Your task to perform on an android device: Turn on the flashlight Image 0: 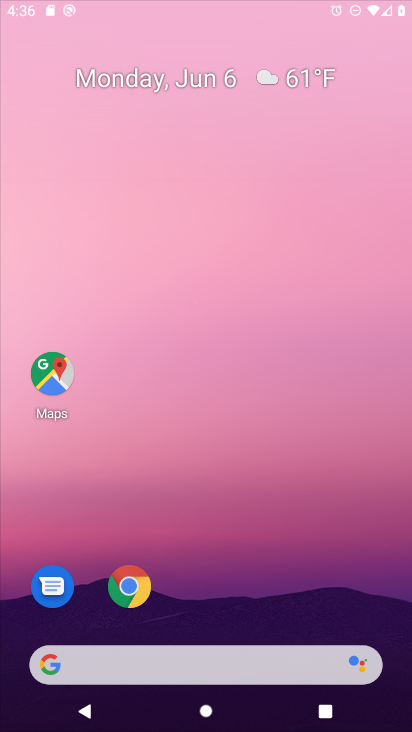
Step 0: click (193, 95)
Your task to perform on an android device: Turn on the flashlight Image 1: 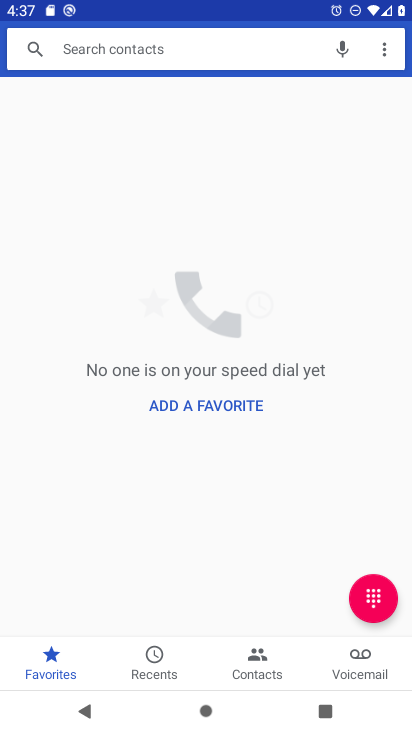
Step 1: drag from (274, 11) to (293, 443)
Your task to perform on an android device: Turn on the flashlight Image 2: 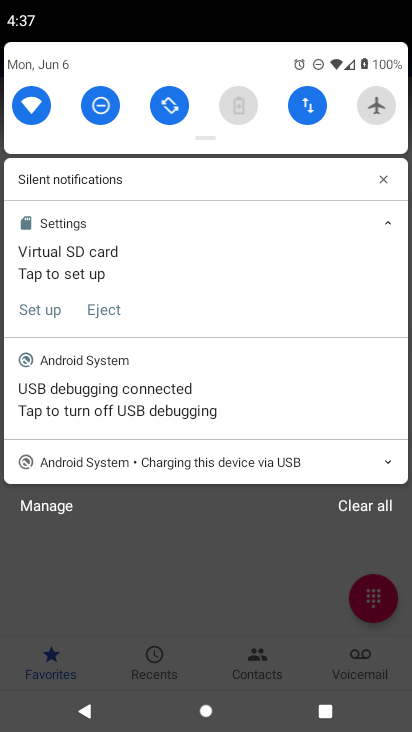
Step 2: drag from (202, 125) to (213, 470)
Your task to perform on an android device: Turn on the flashlight Image 3: 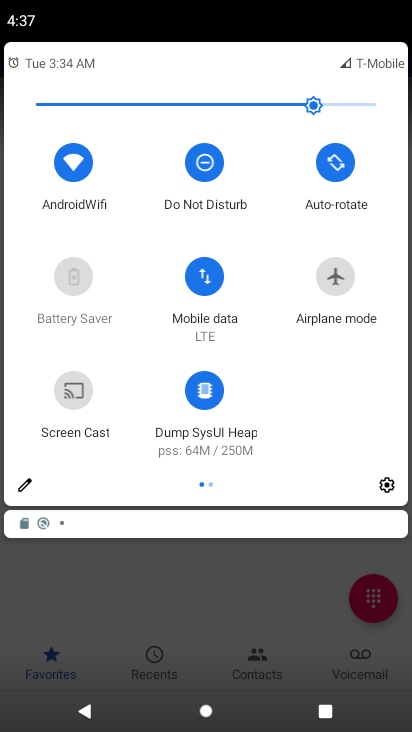
Step 3: click (28, 492)
Your task to perform on an android device: Turn on the flashlight Image 4: 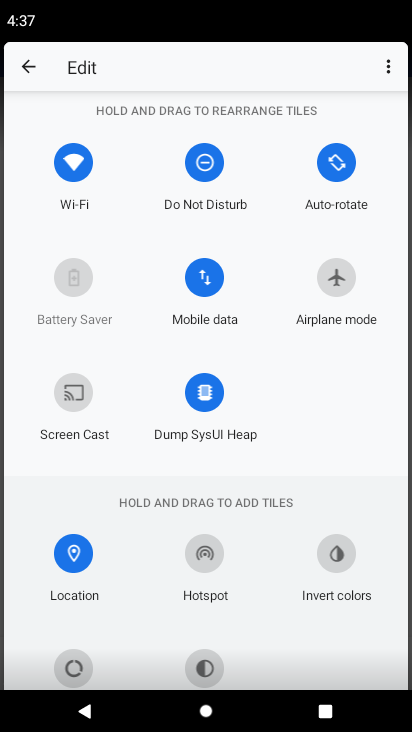
Step 4: task complete